Your task to perform on an android device: Turn on the flashlight Image 0: 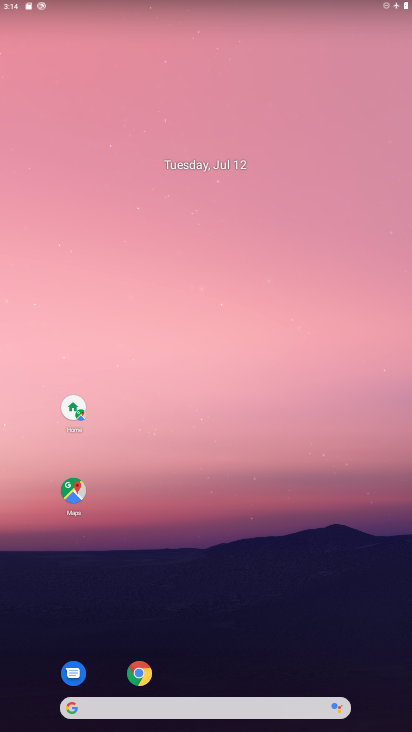
Step 0: drag from (283, 702) to (258, 261)
Your task to perform on an android device: Turn on the flashlight Image 1: 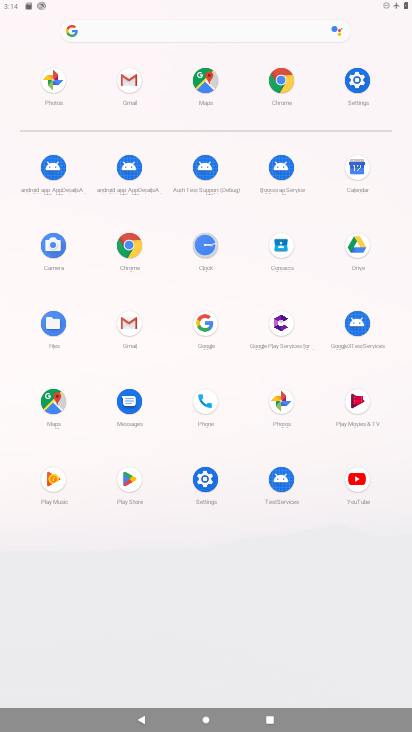
Step 1: click (358, 87)
Your task to perform on an android device: Turn on the flashlight Image 2: 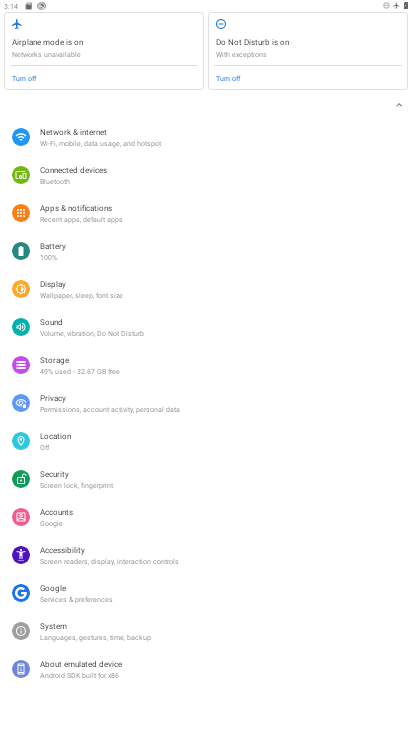
Step 2: task complete